Your task to perform on an android device: turn off notifications settings in the gmail app Image 0: 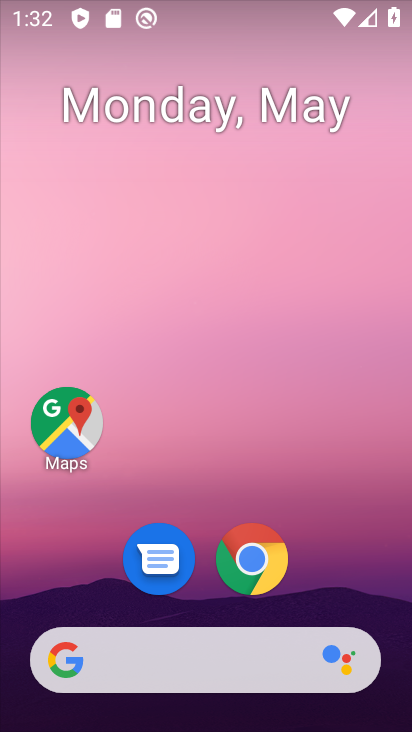
Step 0: drag from (344, 519) to (246, 52)
Your task to perform on an android device: turn off notifications settings in the gmail app Image 1: 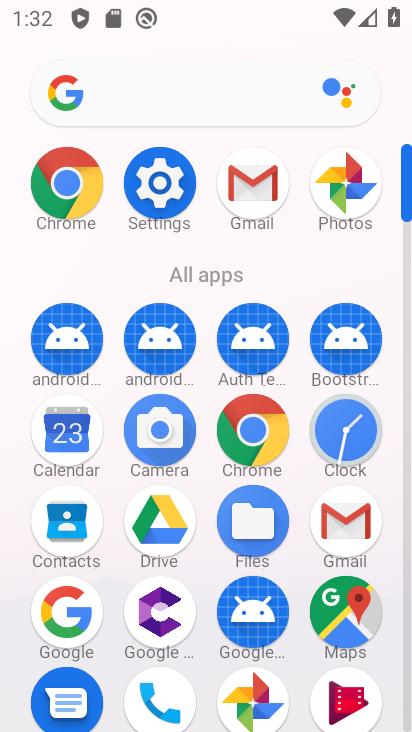
Step 1: click (252, 186)
Your task to perform on an android device: turn off notifications settings in the gmail app Image 2: 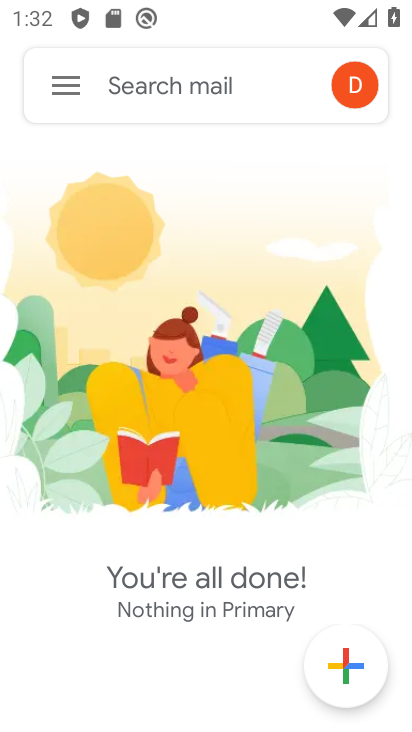
Step 2: click (71, 86)
Your task to perform on an android device: turn off notifications settings in the gmail app Image 3: 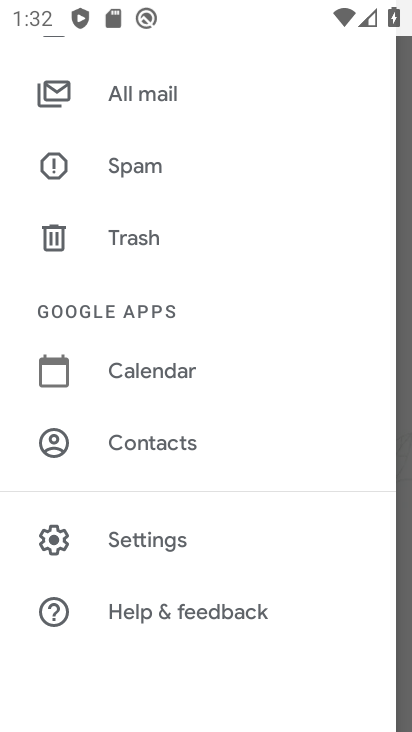
Step 3: click (155, 536)
Your task to perform on an android device: turn off notifications settings in the gmail app Image 4: 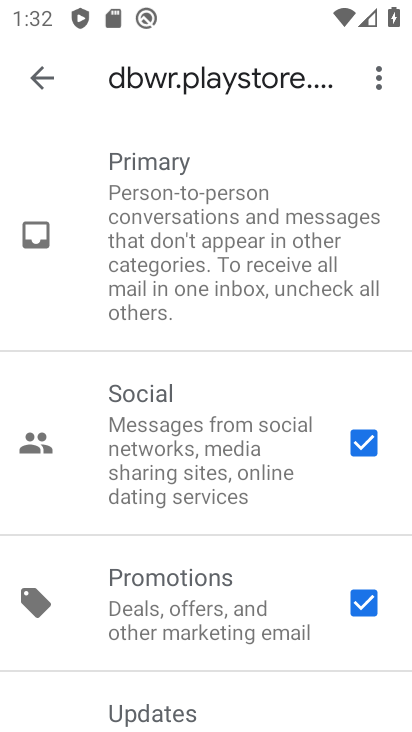
Step 4: click (53, 75)
Your task to perform on an android device: turn off notifications settings in the gmail app Image 5: 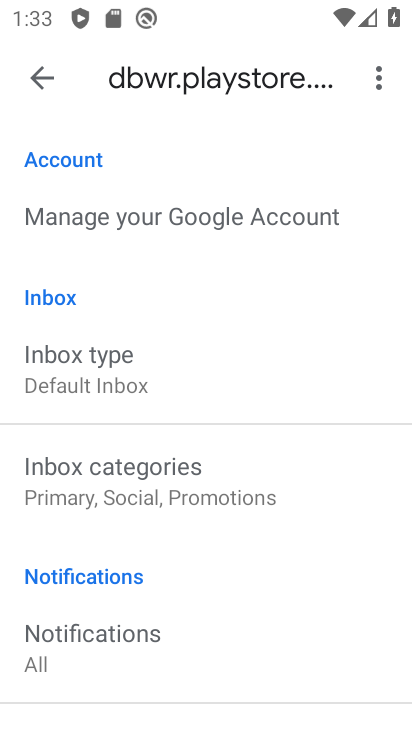
Step 5: drag from (203, 589) to (237, 154)
Your task to perform on an android device: turn off notifications settings in the gmail app Image 6: 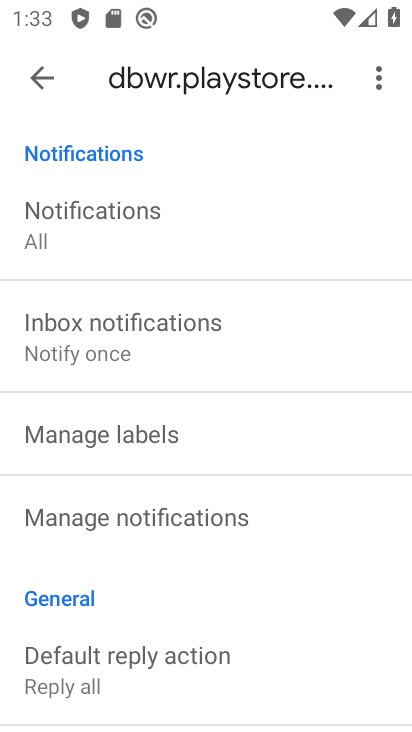
Step 6: click (153, 524)
Your task to perform on an android device: turn off notifications settings in the gmail app Image 7: 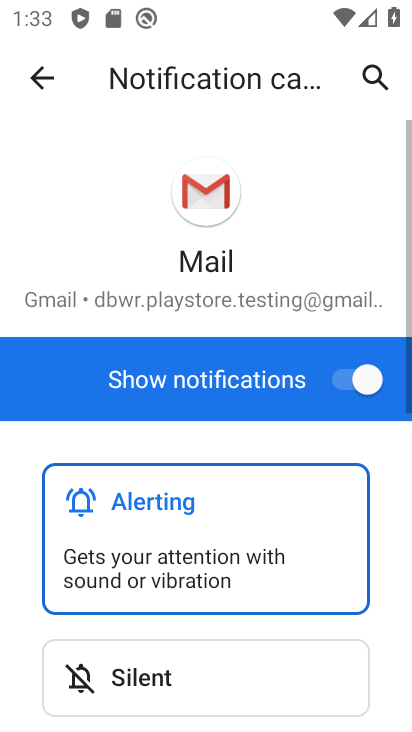
Step 7: click (361, 376)
Your task to perform on an android device: turn off notifications settings in the gmail app Image 8: 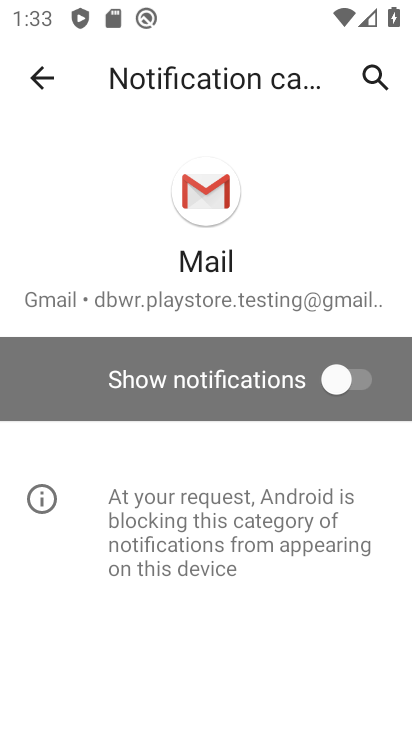
Step 8: task complete